Your task to perform on an android device: Play the last video I watched on Youtube Image 0: 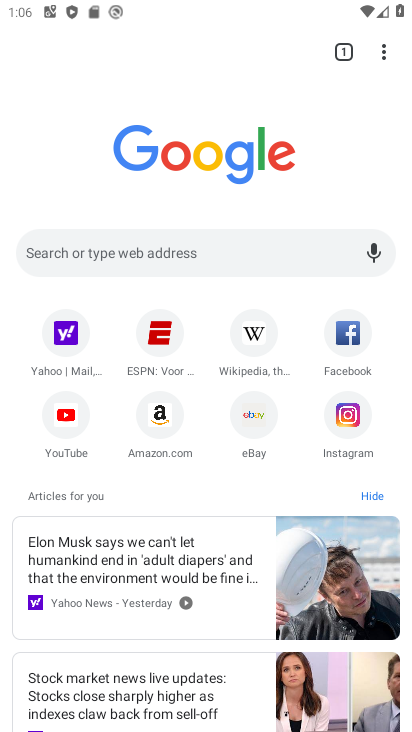
Step 0: press home button
Your task to perform on an android device: Play the last video I watched on Youtube Image 1: 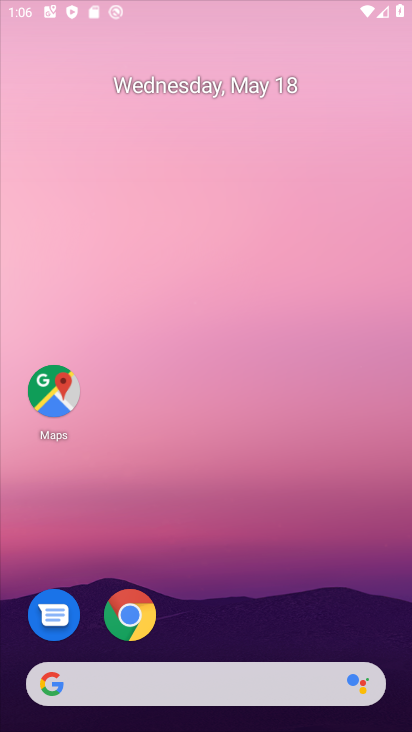
Step 1: drag from (389, 645) to (289, 22)
Your task to perform on an android device: Play the last video I watched on Youtube Image 2: 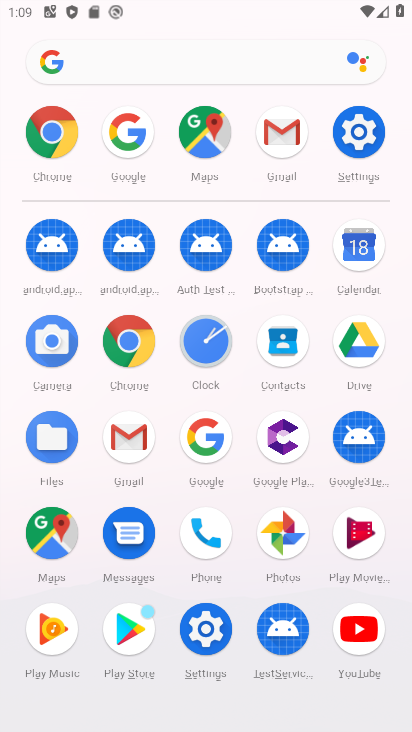
Step 2: click (375, 643)
Your task to perform on an android device: Play the last video I watched on Youtube Image 3: 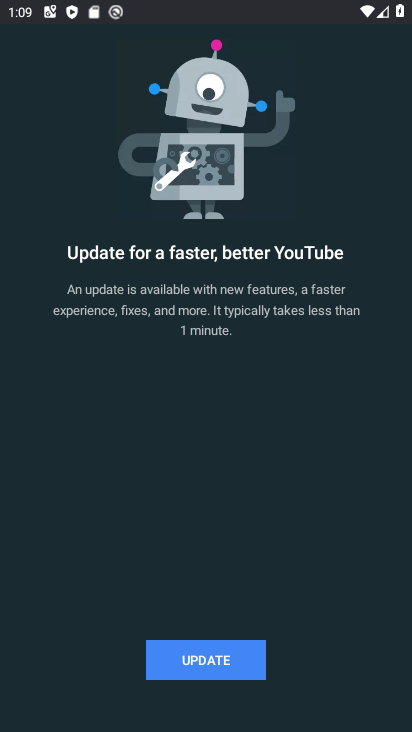
Step 3: click (189, 650)
Your task to perform on an android device: Play the last video I watched on Youtube Image 4: 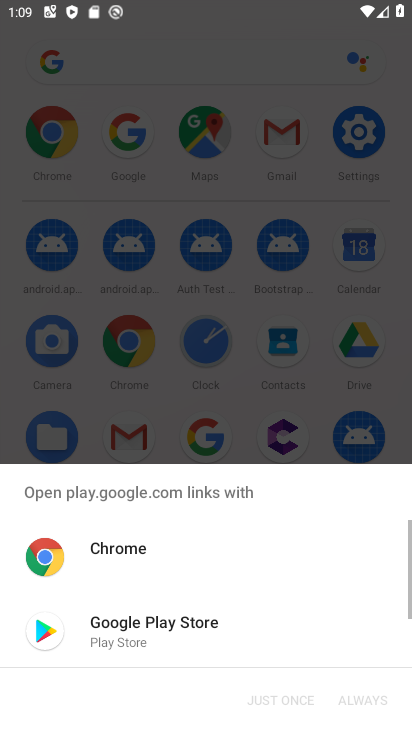
Step 4: click (64, 631)
Your task to perform on an android device: Play the last video I watched on Youtube Image 5: 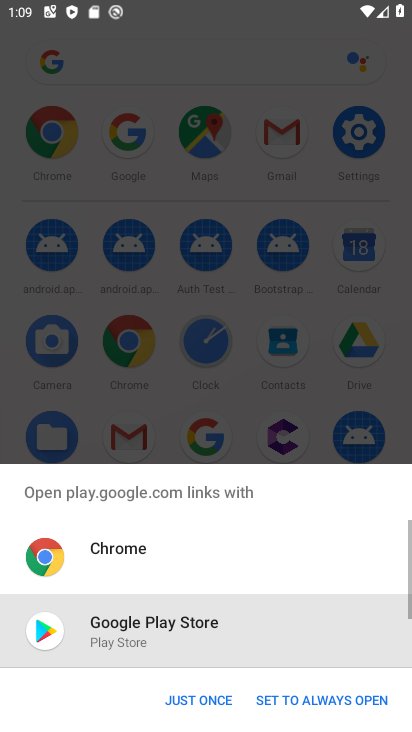
Step 5: click (205, 692)
Your task to perform on an android device: Play the last video I watched on Youtube Image 6: 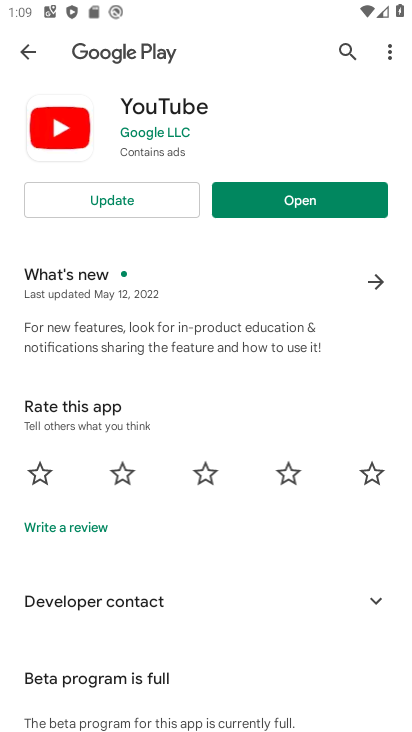
Step 6: click (121, 203)
Your task to perform on an android device: Play the last video I watched on Youtube Image 7: 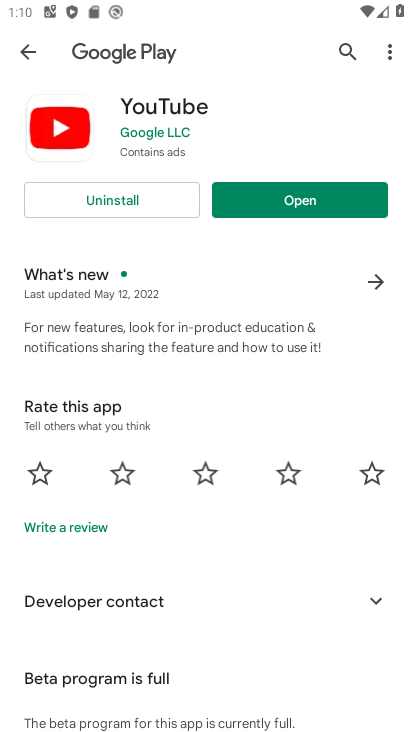
Step 7: click (304, 175)
Your task to perform on an android device: Play the last video I watched on Youtube Image 8: 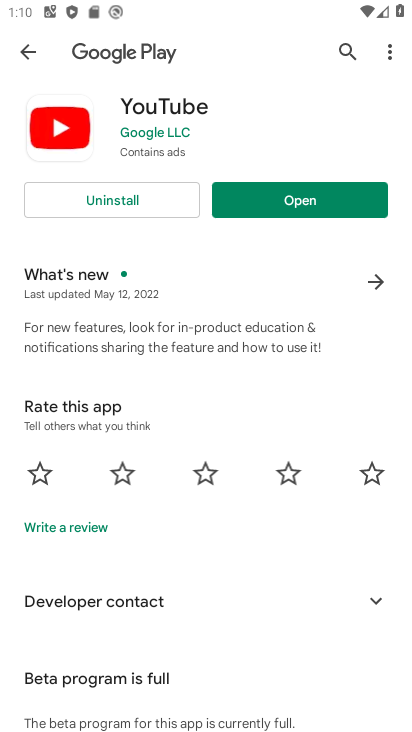
Step 8: click (301, 187)
Your task to perform on an android device: Play the last video I watched on Youtube Image 9: 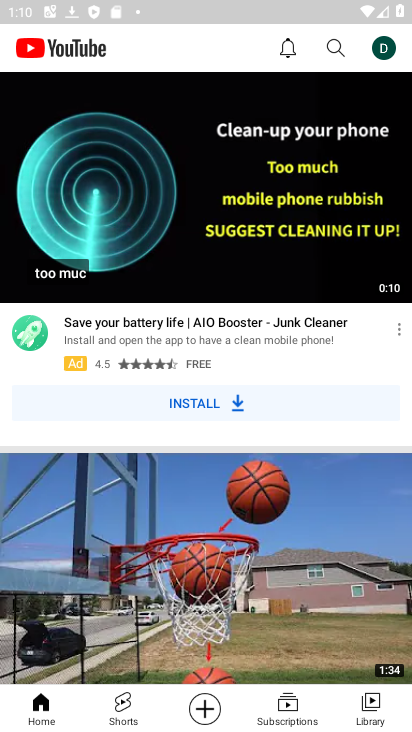
Step 9: task complete